Your task to perform on an android device: Open location settings Image 0: 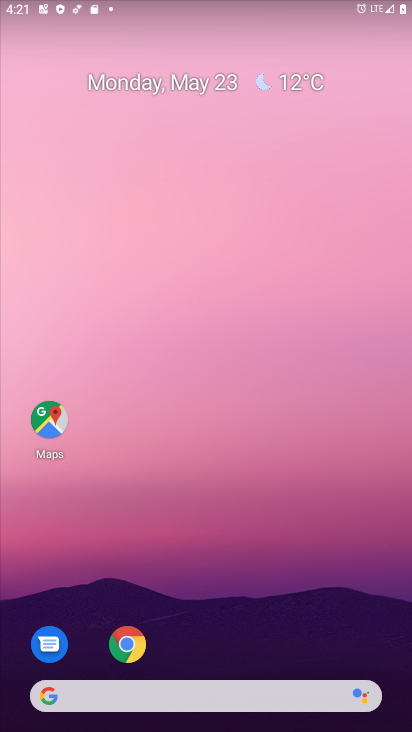
Step 0: drag from (265, 618) to (198, 328)
Your task to perform on an android device: Open location settings Image 1: 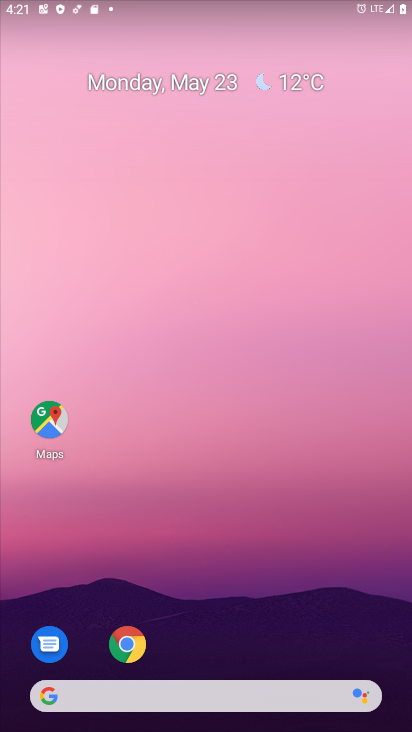
Step 1: drag from (223, 627) to (198, 4)
Your task to perform on an android device: Open location settings Image 2: 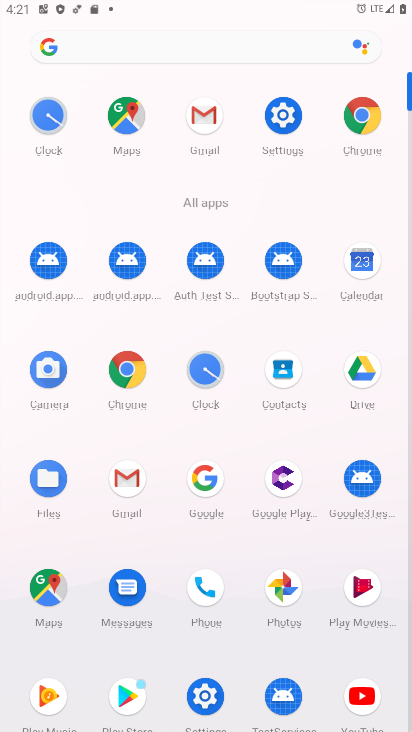
Step 2: click (281, 121)
Your task to perform on an android device: Open location settings Image 3: 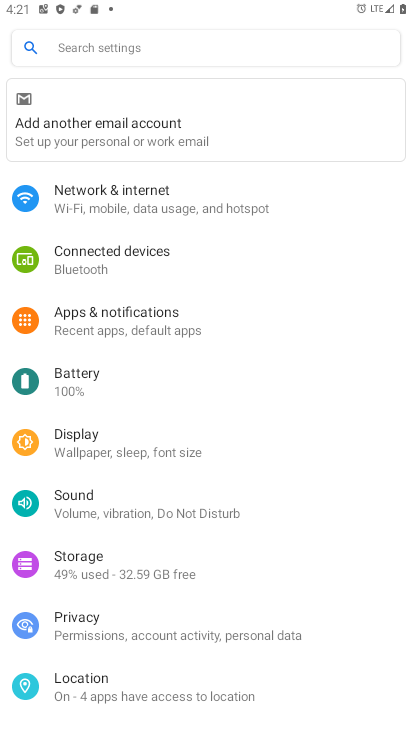
Step 3: click (209, 686)
Your task to perform on an android device: Open location settings Image 4: 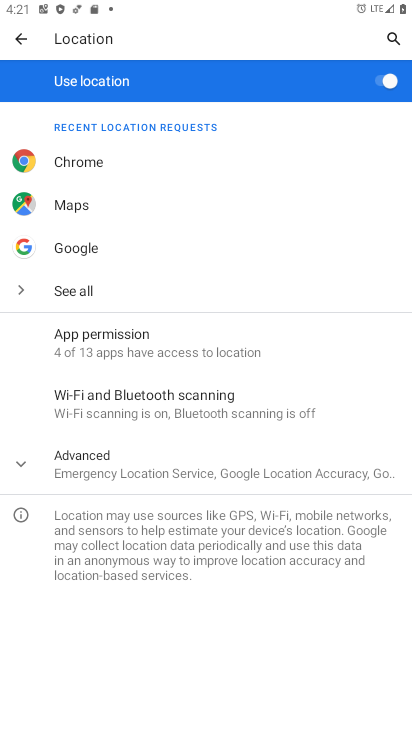
Step 4: task complete